Your task to perform on an android device: Open Google Maps Image 0: 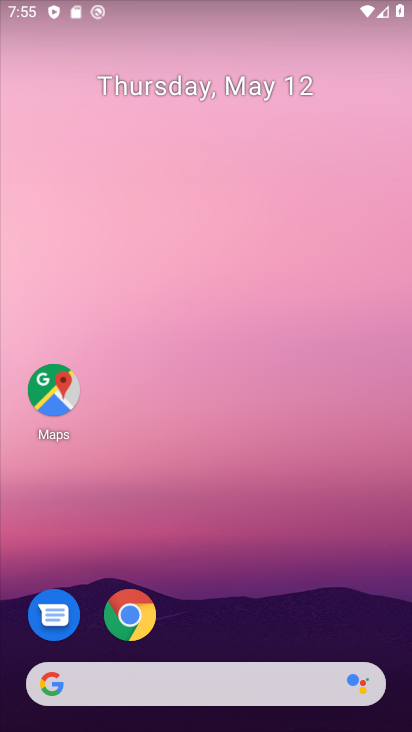
Step 0: drag from (270, 606) to (234, 24)
Your task to perform on an android device: Open Google Maps Image 1: 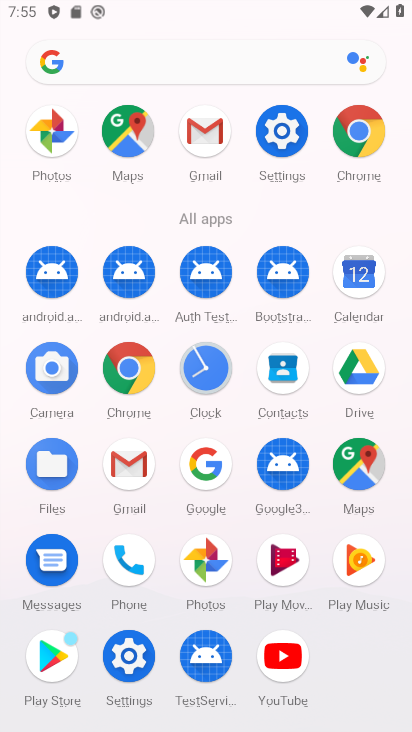
Step 1: drag from (2, 502) to (0, 338)
Your task to perform on an android device: Open Google Maps Image 2: 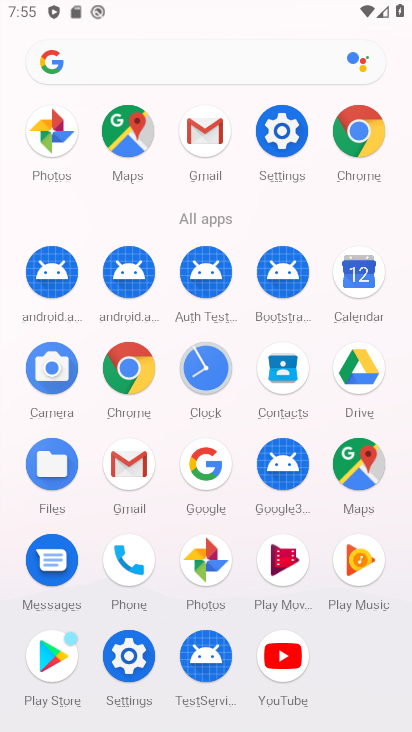
Step 2: click (361, 459)
Your task to perform on an android device: Open Google Maps Image 3: 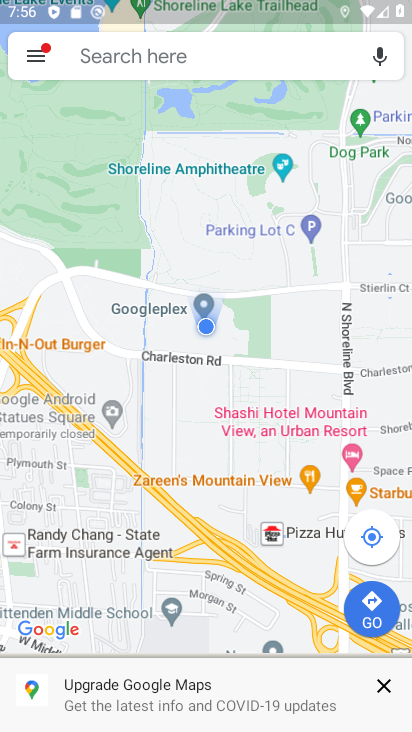
Step 3: task complete